Your task to perform on an android device: Go to network settings Image 0: 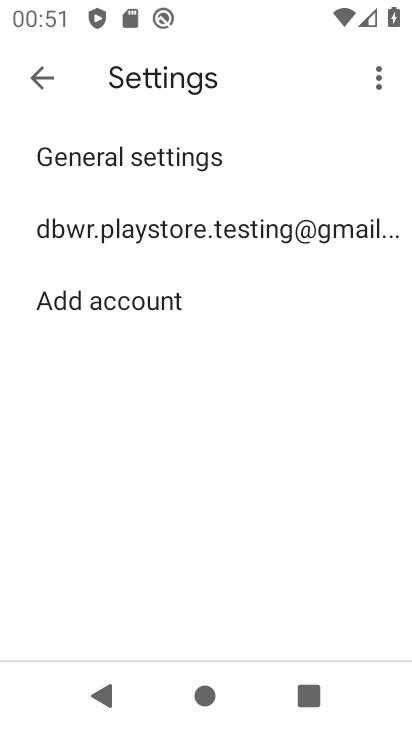
Step 0: press home button
Your task to perform on an android device: Go to network settings Image 1: 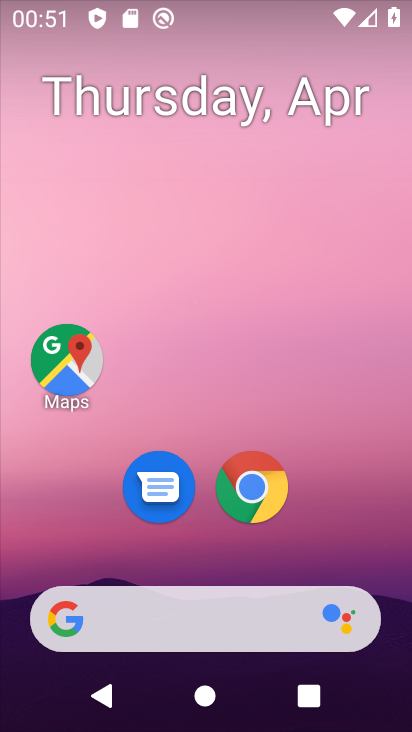
Step 1: drag from (304, 566) to (283, 52)
Your task to perform on an android device: Go to network settings Image 2: 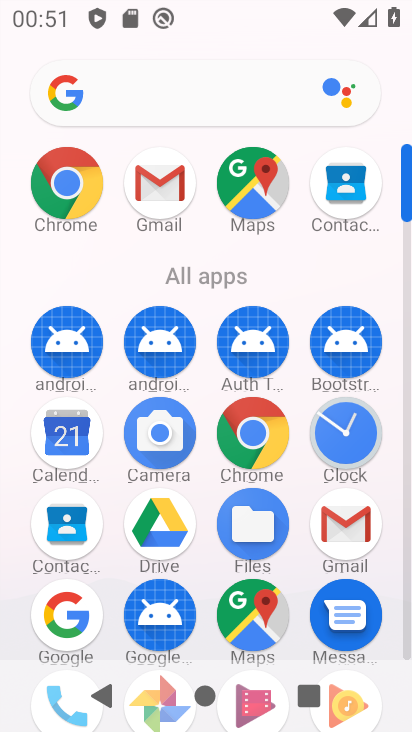
Step 2: drag from (211, 504) to (191, 348)
Your task to perform on an android device: Go to network settings Image 3: 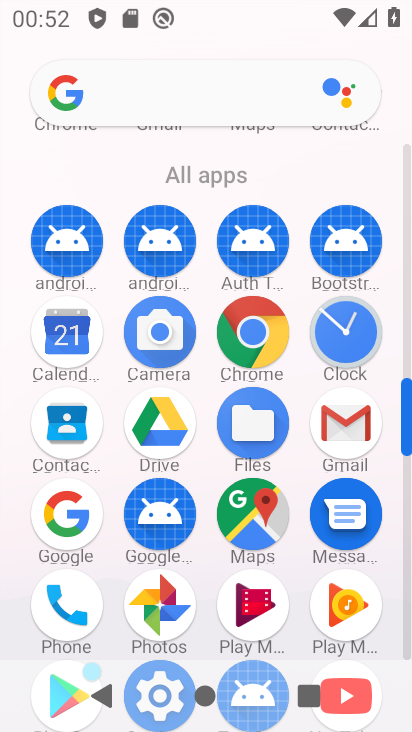
Step 3: drag from (207, 562) to (182, 379)
Your task to perform on an android device: Go to network settings Image 4: 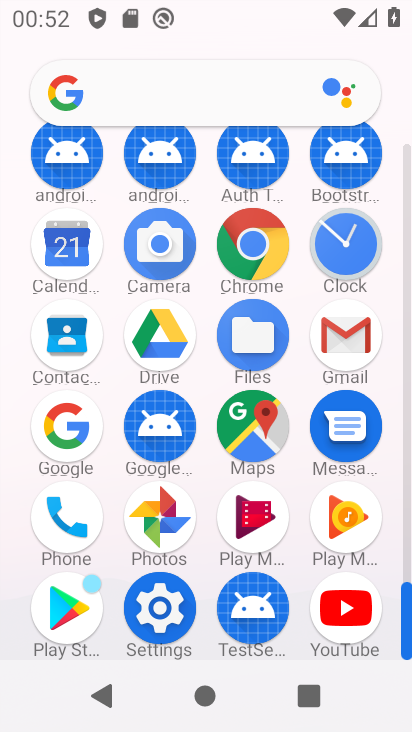
Step 4: click (156, 614)
Your task to perform on an android device: Go to network settings Image 5: 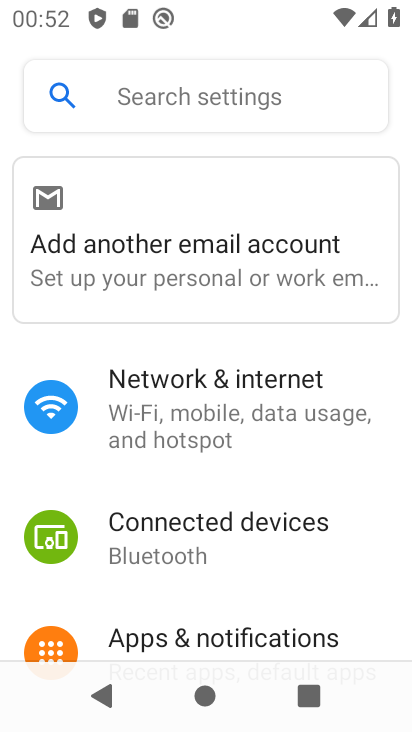
Step 5: click (166, 381)
Your task to perform on an android device: Go to network settings Image 6: 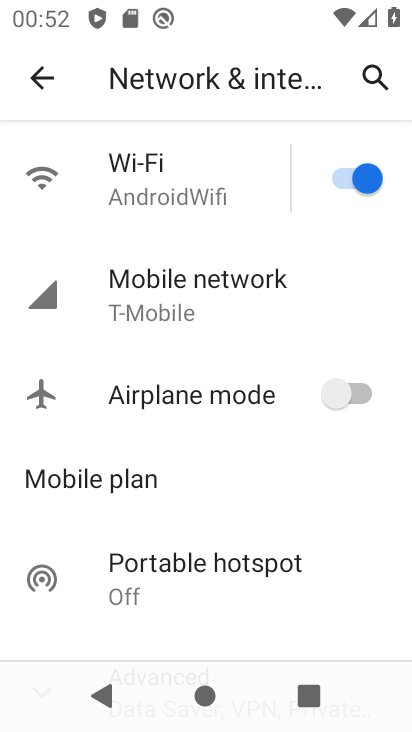
Step 6: task complete